Your task to perform on an android device: turn off improve location accuracy Image 0: 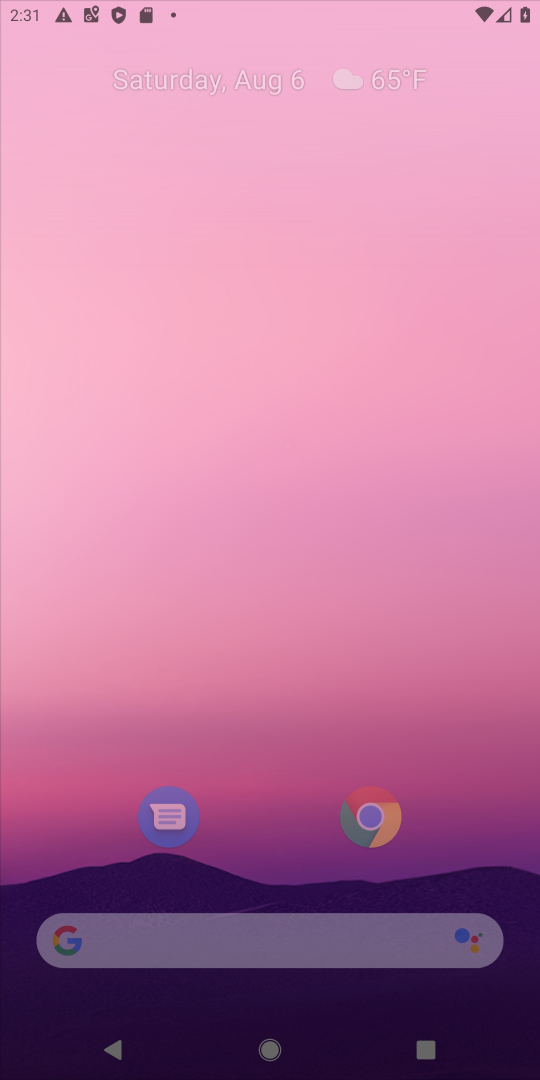
Step 0: press back button
Your task to perform on an android device: turn off improve location accuracy Image 1: 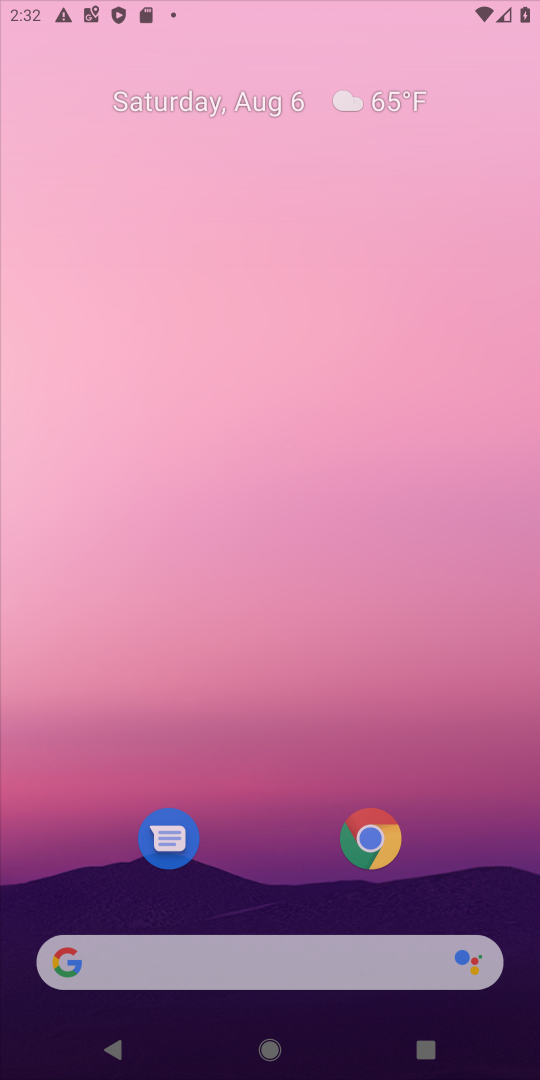
Step 1: drag from (260, 890) to (334, 94)
Your task to perform on an android device: turn off improve location accuracy Image 2: 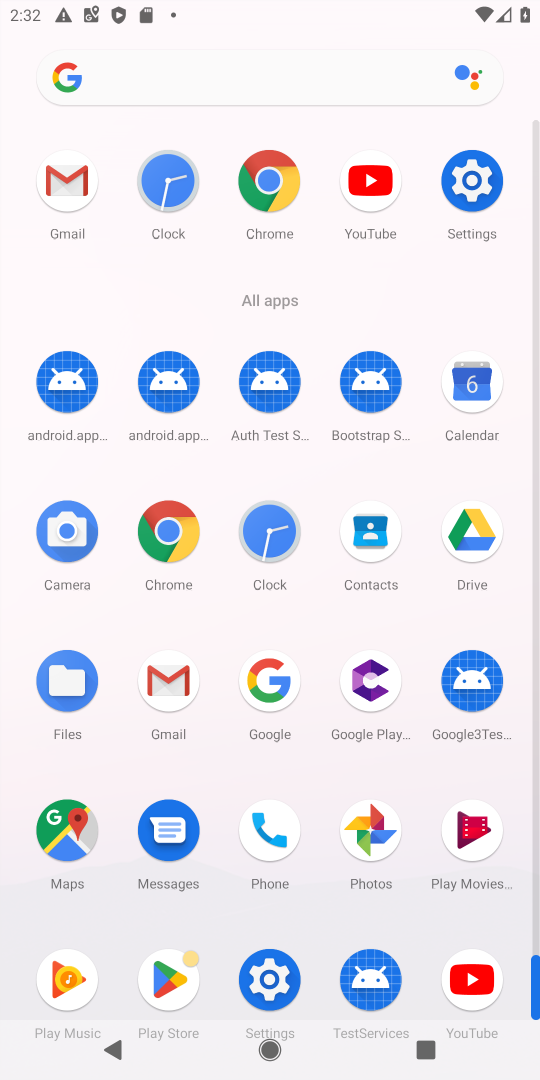
Step 2: click (465, 178)
Your task to perform on an android device: turn off improve location accuracy Image 3: 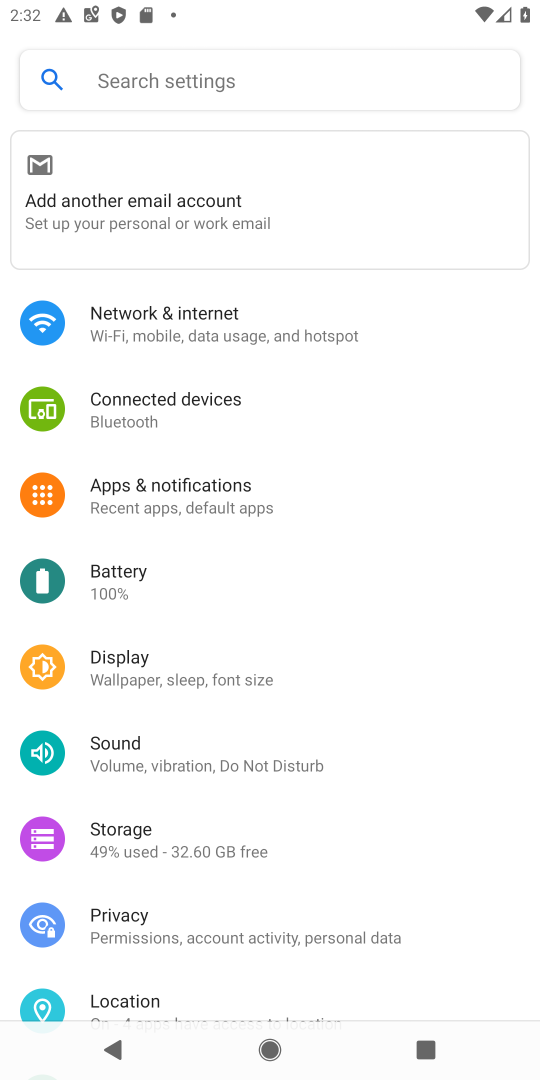
Step 3: click (184, 1006)
Your task to perform on an android device: turn off improve location accuracy Image 4: 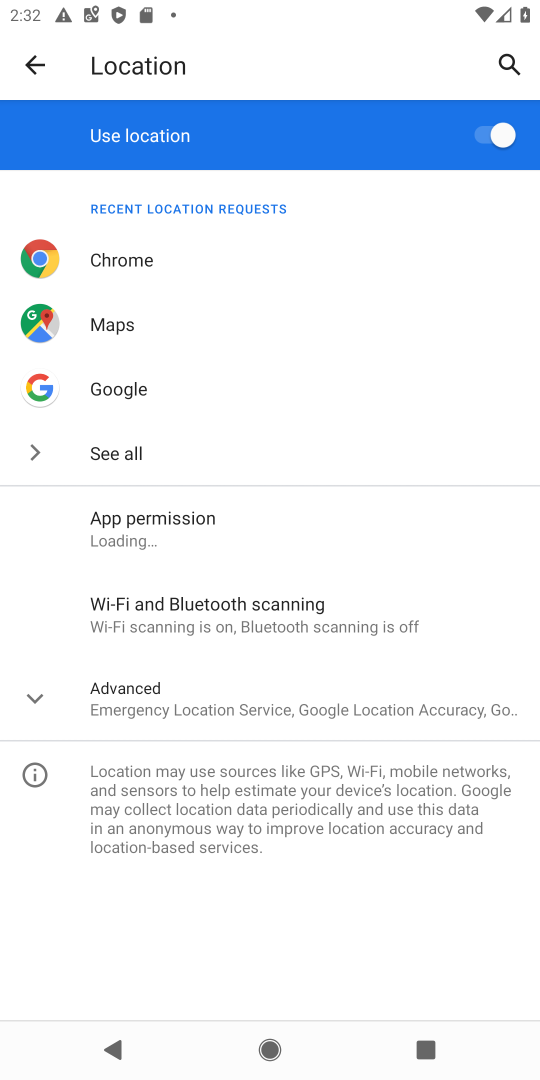
Step 4: click (227, 688)
Your task to perform on an android device: turn off improve location accuracy Image 5: 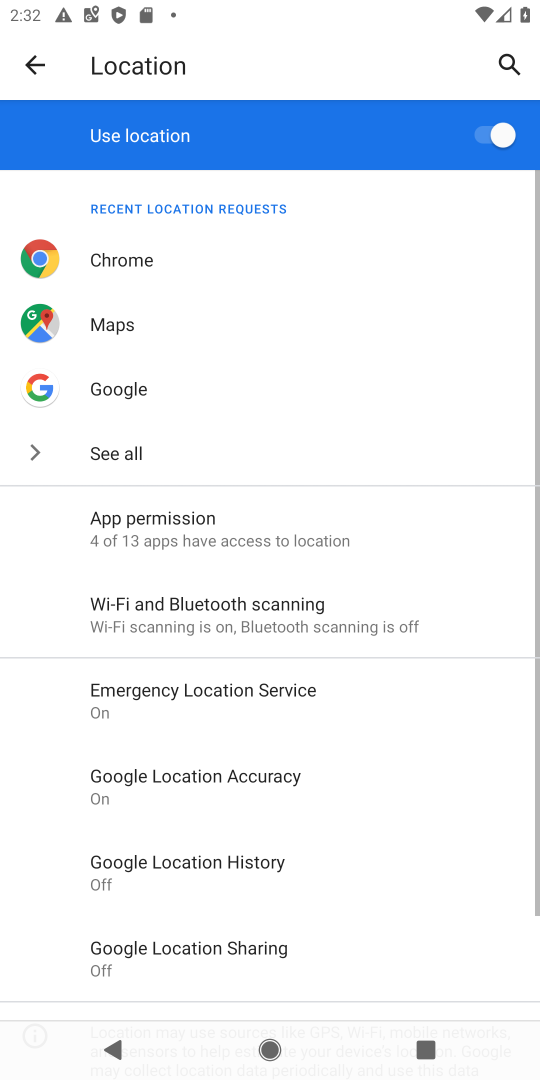
Step 5: click (243, 789)
Your task to perform on an android device: turn off improve location accuracy Image 6: 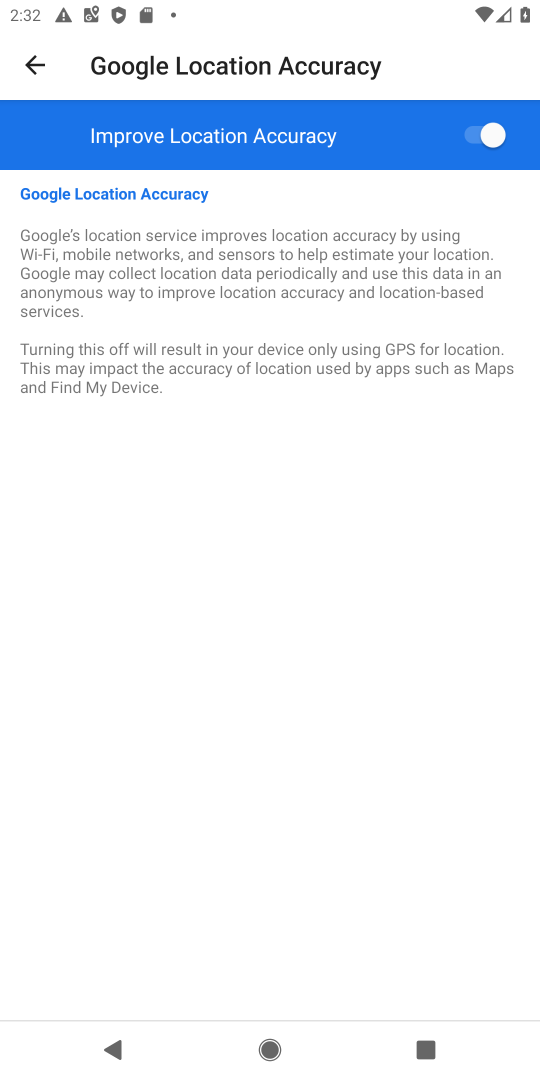
Step 6: click (498, 128)
Your task to perform on an android device: turn off improve location accuracy Image 7: 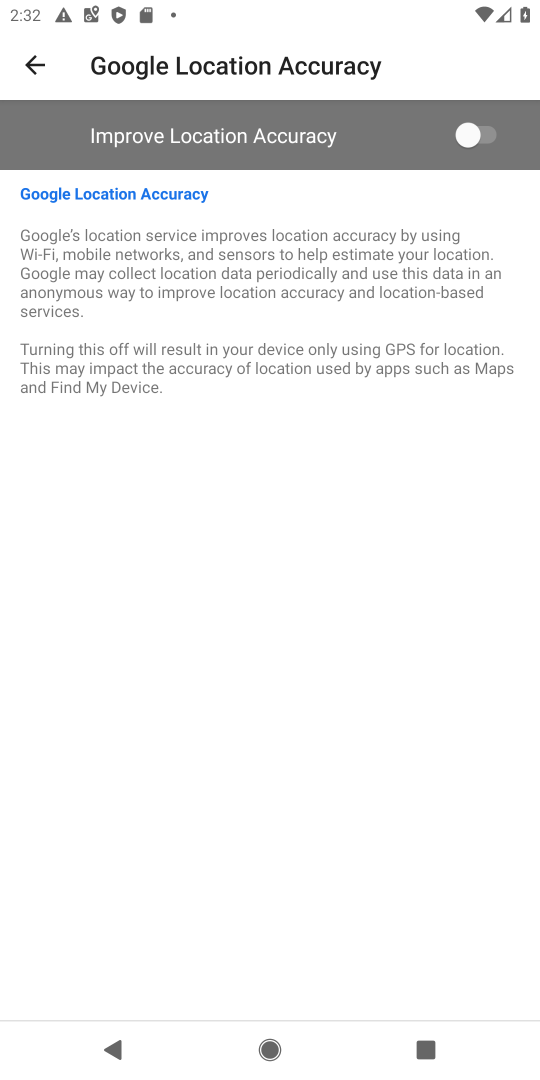
Step 7: task complete